Your task to perform on an android device: allow notifications from all sites in the chrome app Image 0: 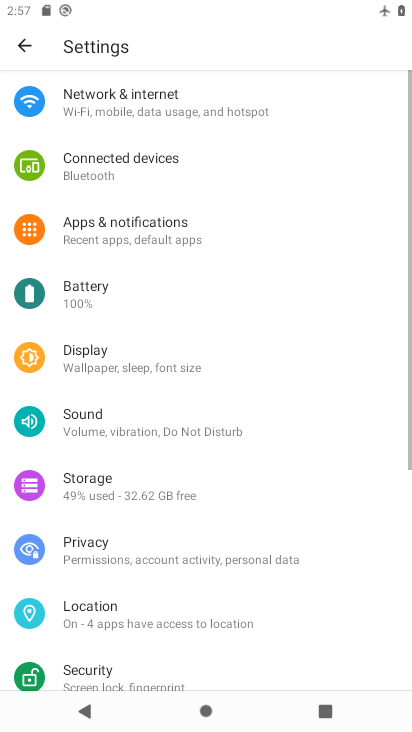
Step 0: press home button
Your task to perform on an android device: allow notifications from all sites in the chrome app Image 1: 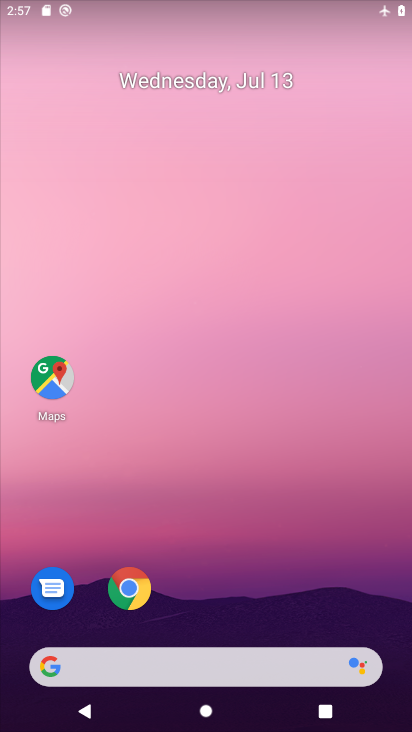
Step 1: drag from (167, 648) to (274, 6)
Your task to perform on an android device: allow notifications from all sites in the chrome app Image 2: 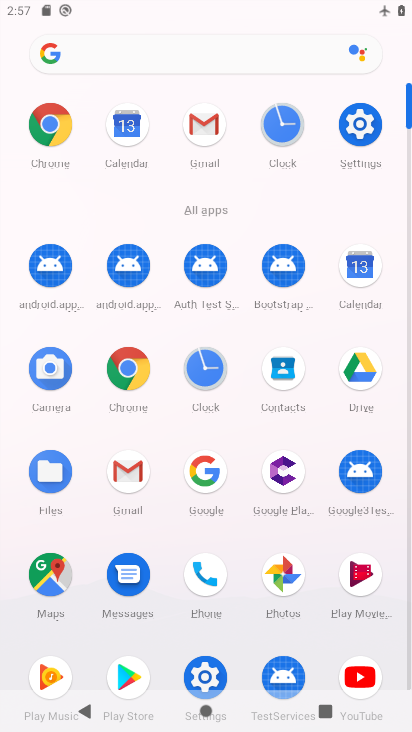
Step 2: click (135, 368)
Your task to perform on an android device: allow notifications from all sites in the chrome app Image 3: 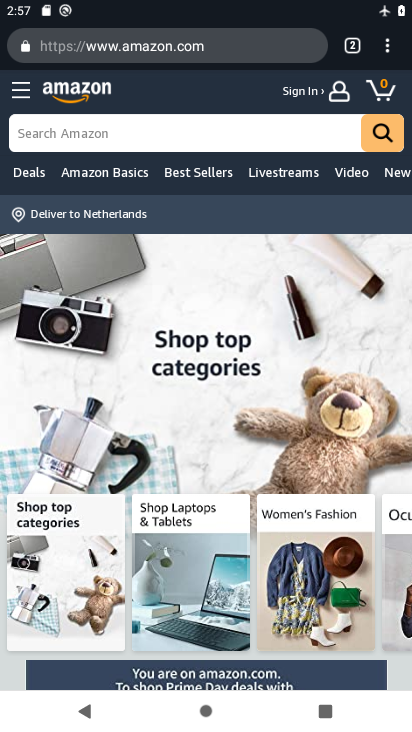
Step 3: click (384, 46)
Your task to perform on an android device: allow notifications from all sites in the chrome app Image 4: 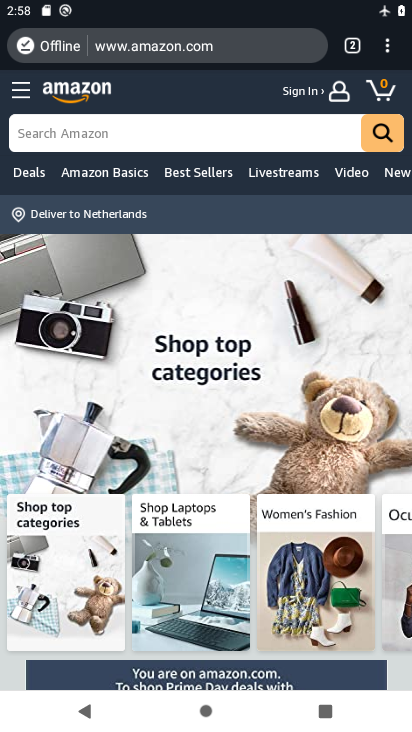
Step 4: click (384, 46)
Your task to perform on an android device: allow notifications from all sites in the chrome app Image 5: 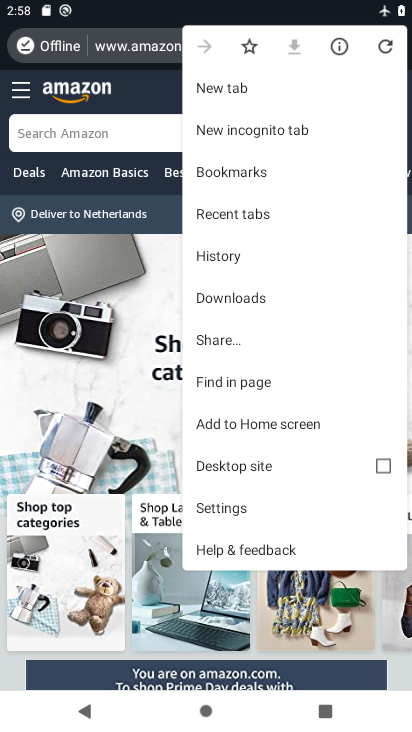
Step 5: click (237, 504)
Your task to perform on an android device: allow notifications from all sites in the chrome app Image 6: 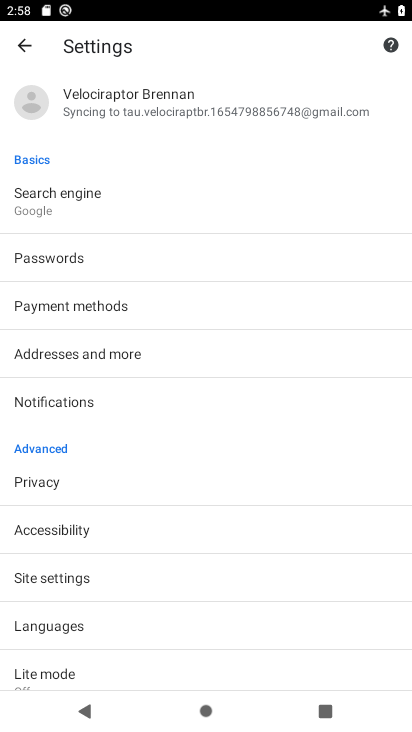
Step 6: click (55, 398)
Your task to perform on an android device: allow notifications from all sites in the chrome app Image 7: 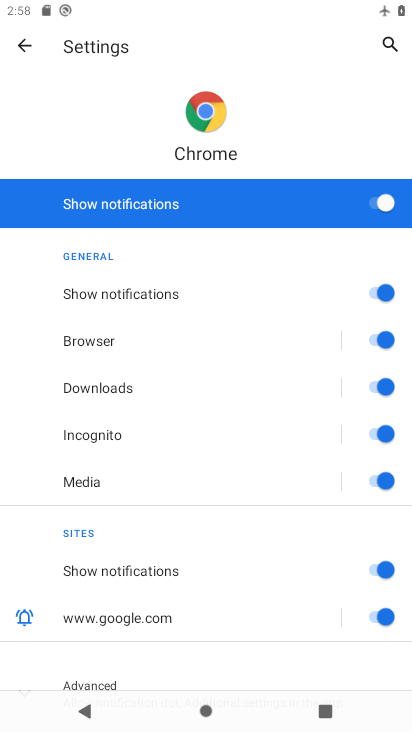
Step 7: click (21, 42)
Your task to perform on an android device: allow notifications from all sites in the chrome app Image 8: 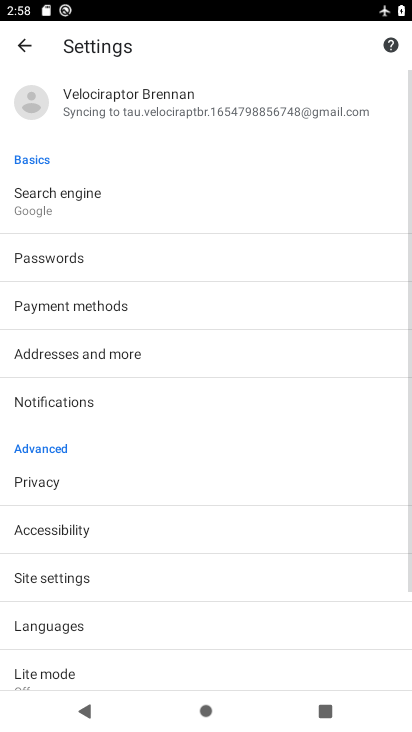
Step 8: click (52, 576)
Your task to perform on an android device: allow notifications from all sites in the chrome app Image 9: 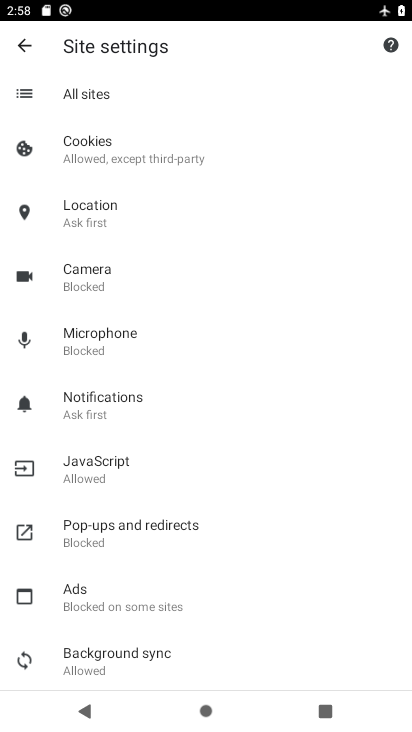
Step 9: click (84, 411)
Your task to perform on an android device: allow notifications from all sites in the chrome app Image 10: 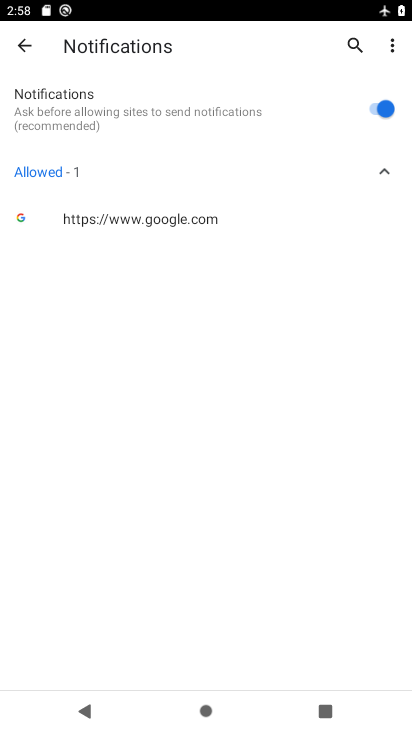
Step 10: task complete